Your task to perform on an android device: stop showing notifications on the lock screen Image 0: 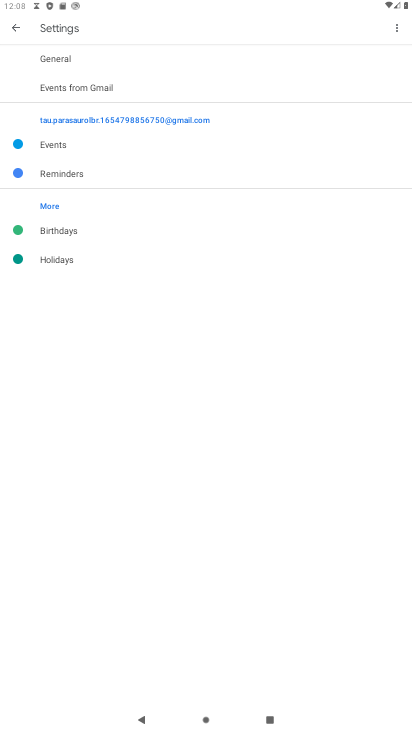
Step 0: press home button
Your task to perform on an android device: stop showing notifications on the lock screen Image 1: 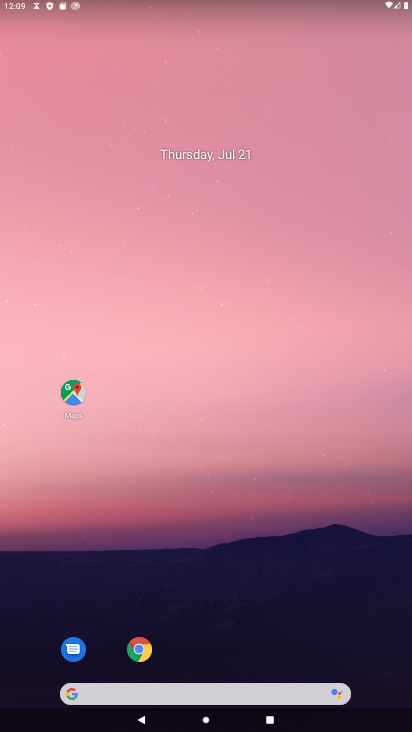
Step 1: drag from (225, 727) to (228, 258)
Your task to perform on an android device: stop showing notifications on the lock screen Image 2: 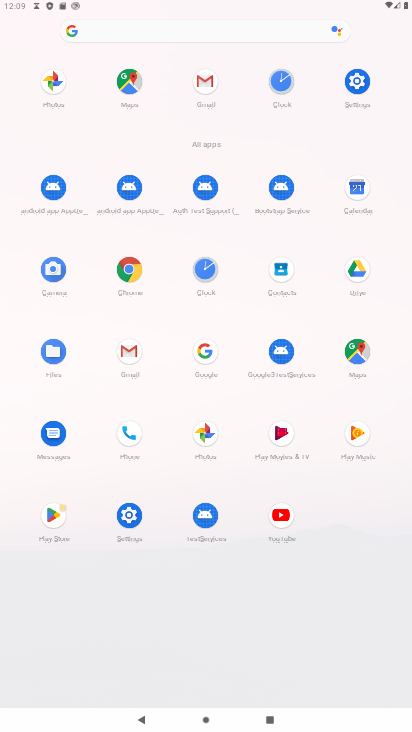
Step 2: click (360, 80)
Your task to perform on an android device: stop showing notifications on the lock screen Image 3: 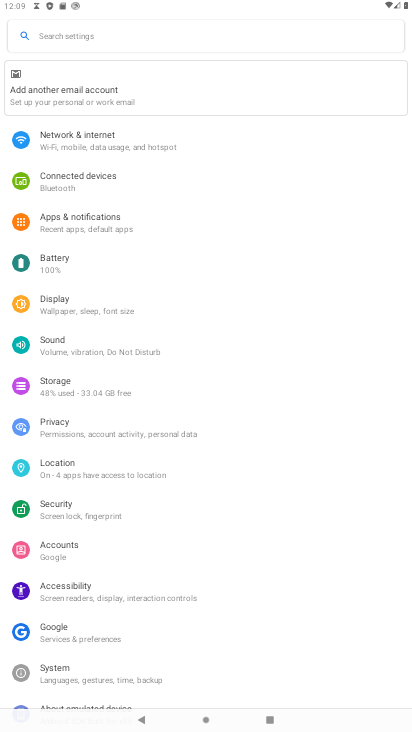
Step 3: click (64, 221)
Your task to perform on an android device: stop showing notifications on the lock screen Image 4: 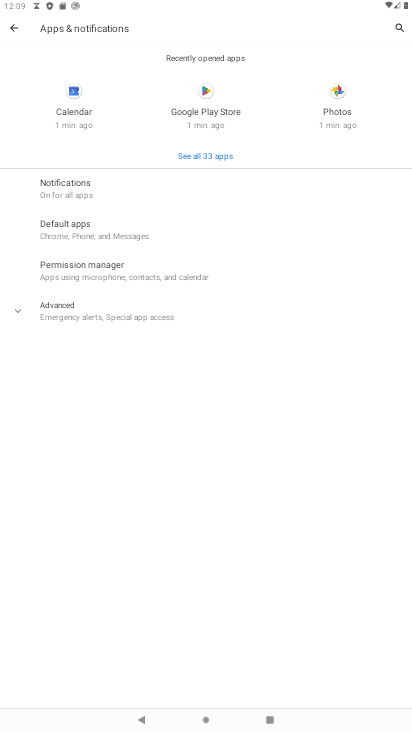
Step 4: click (63, 189)
Your task to perform on an android device: stop showing notifications on the lock screen Image 5: 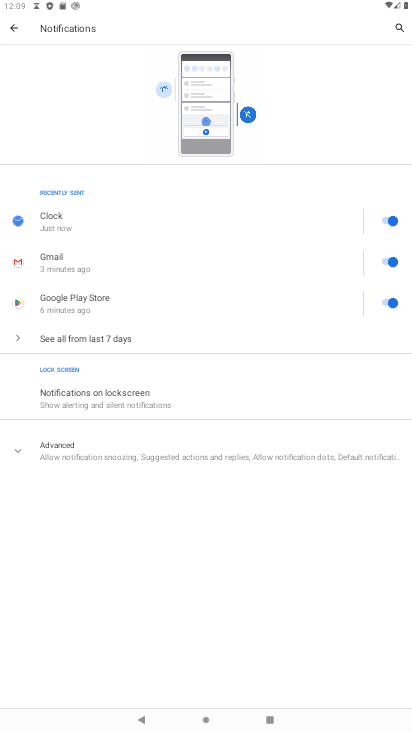
Step 5: click (91, 394)
Your task to perform on an android device: stop showing notifications on the lock screen Image 6: 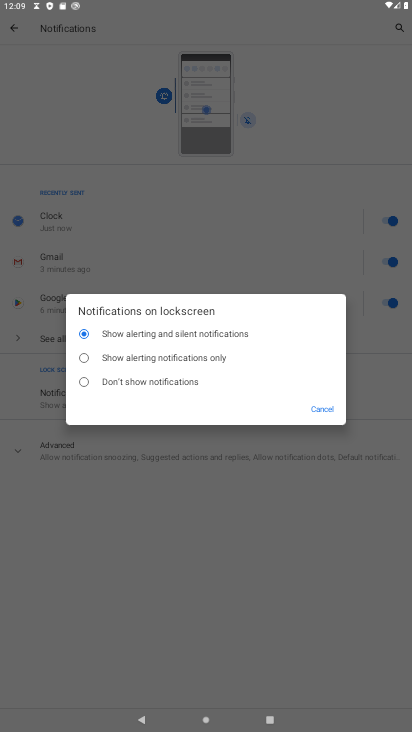
Step 6: click (85, 380)
Your task to perform on an android device: stop showing notifications on the lock screen Image 7: 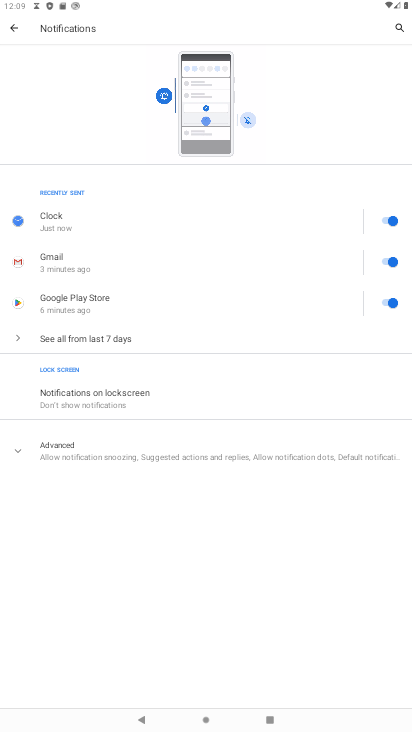
Step 7: task complete